Your task to perform on an android device: turn off notifications in google photos Image 0: 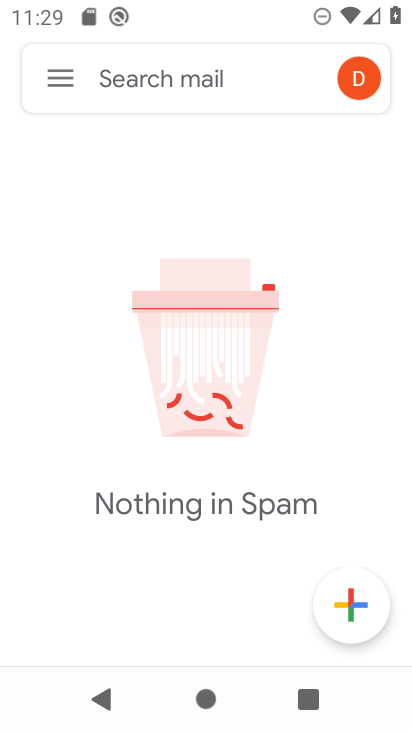
Step 0: press home button
Your task to perform on an android device: turn off notifications in google photos Image 1: 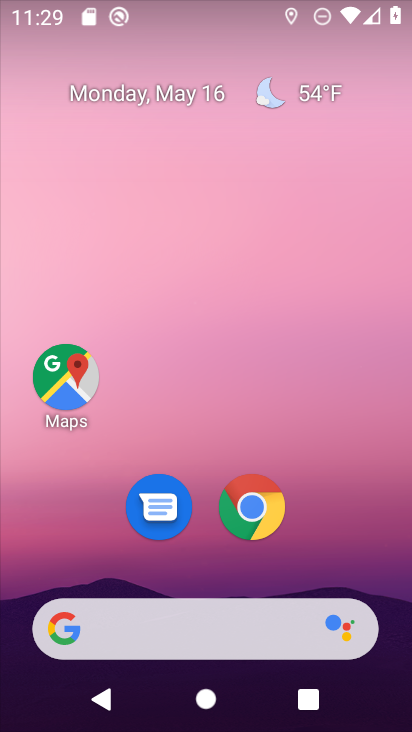
Step 1: drag from (391, 621) to (298, 150)
Your task to perform on an android device: turn off notifications in google photos Image 2: 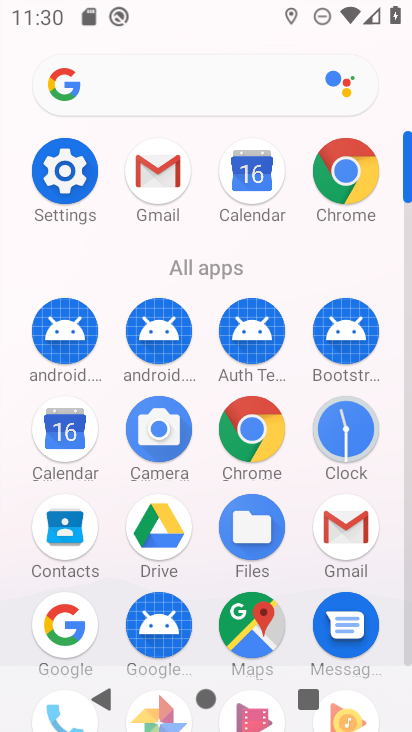
Step 2: click (405, 658)
Your task to perform on an android device: turn off notifications in google photos Image 3: 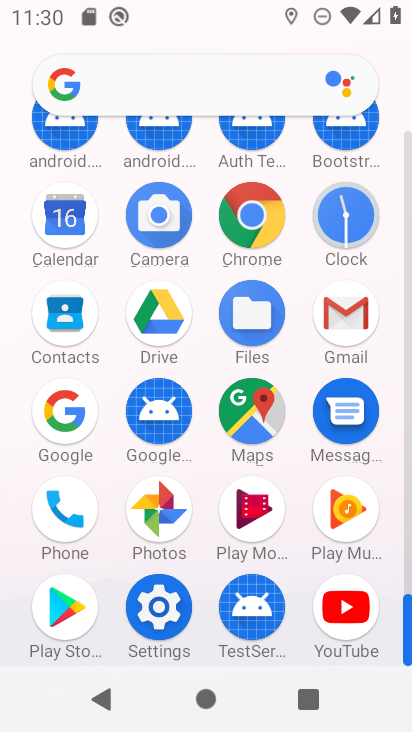
Step 3: click (166, 488)
Your task to perform on an android device: turn off notifications in google photos Image 4: 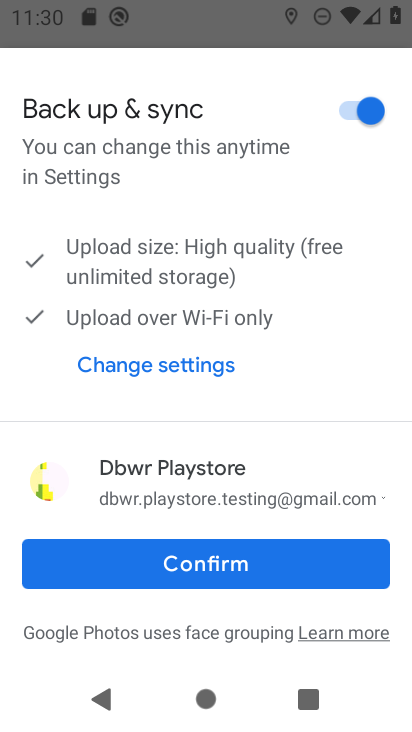
Step 4: click (219, 570)
Your task to perform on an android device: turn off notifications in google photos Image 5: 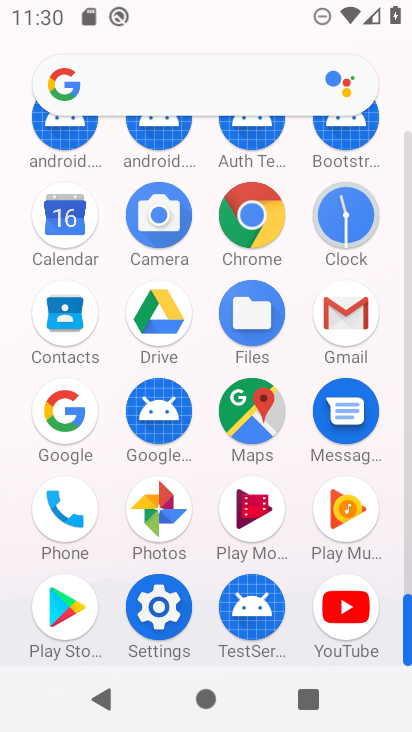
Step 5: click (177, 509)
Your task to perform on an android device: turn off notifications in google photos Image 6: 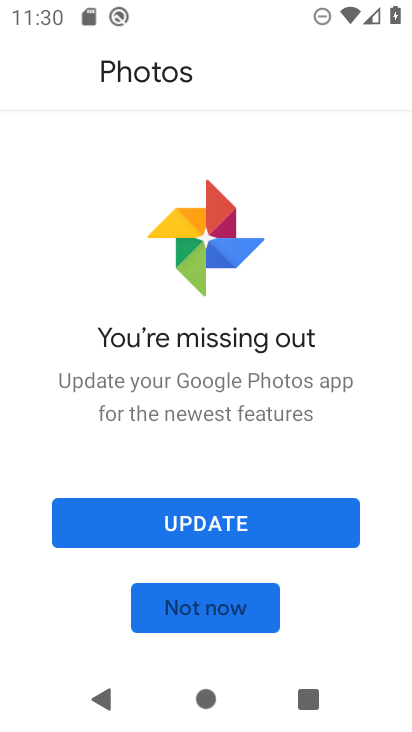
Step 6: click (216, 526)
Your task to perform on an android device: turn off notifications in google photos Image 7: 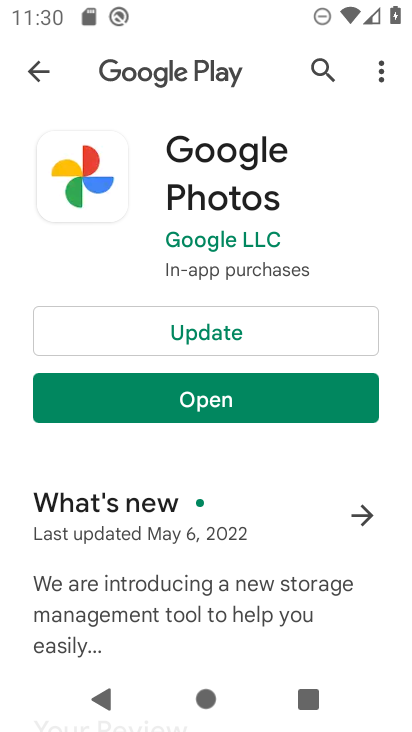
Step 7: click (242, 334)
Your task to perform on an android device: turn off notifications in google photos Image 8: 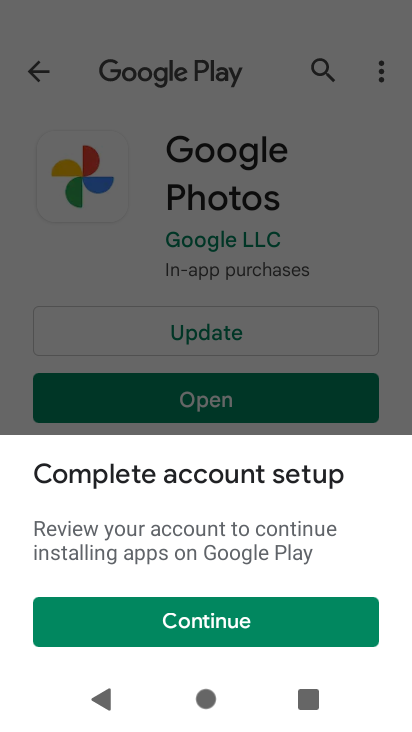
Step 8: click (250, 618)
Your task to perform on an android device: turn off notifications in google photos Image 9: 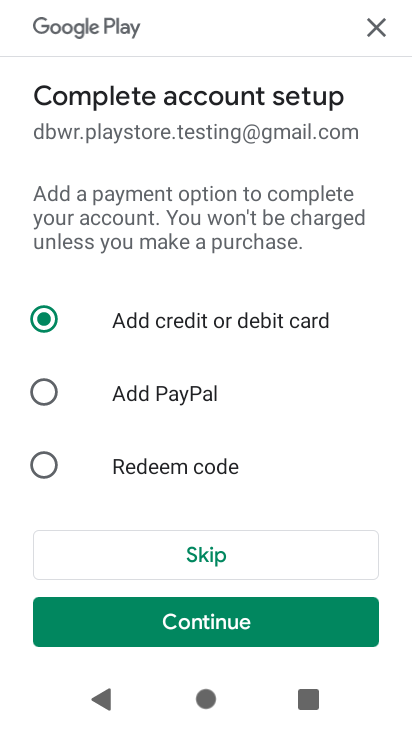
Step 9: click (250, 563)
Your task to perform on an android device: turn off notifications in google photos Image 10: 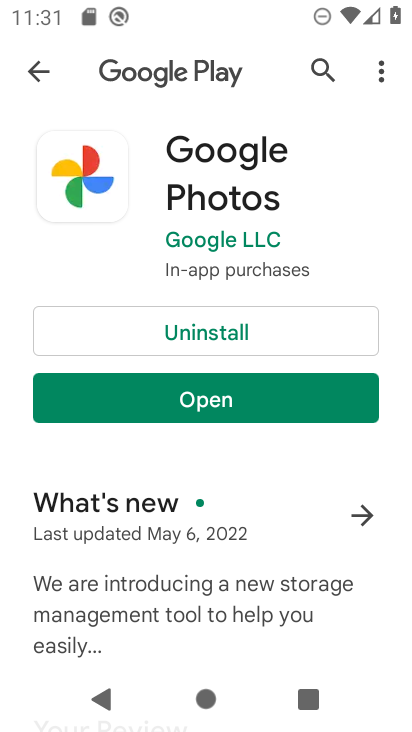
Step 10: click (307, 406)
Your task to perform on an android device: turn off notifications in google photos Image 11: 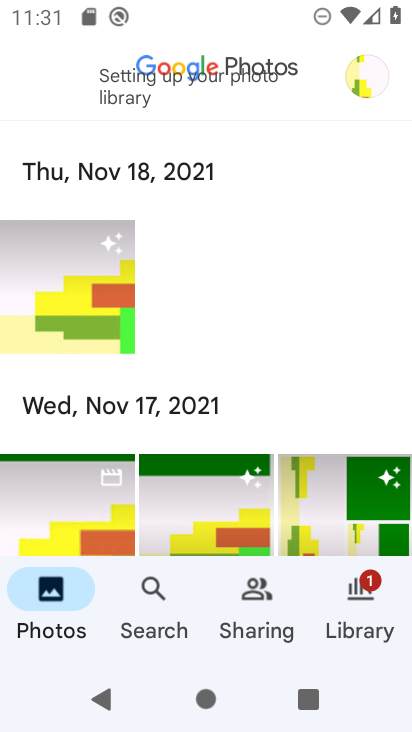
Step 11: click (356, 75)
Your task to perform on an android device: turn off notifications in google photos Image 12: 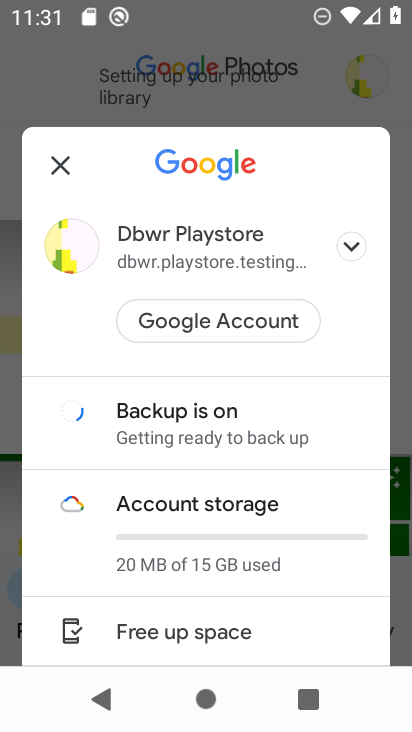
Step 12: drag from (298, 645) to (292, 353)
Your task to perform on an android device: turn off notifications in google photos Image 13: 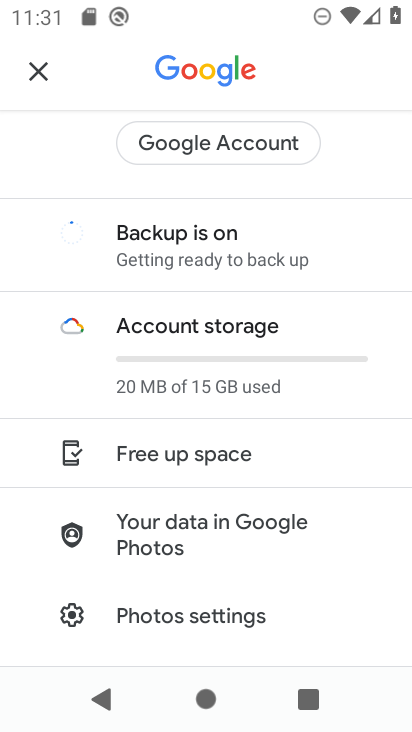
Step 13: click (288, 624)
Your task to perform on an android device: turn off notifications in google photos Image 14: 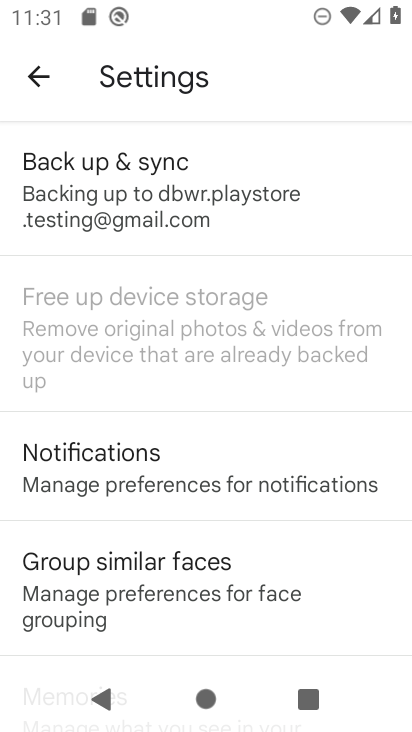
Step 14: click (287, 460)
Your task to perform on an android device: turn off notifications in google photos Image 15: 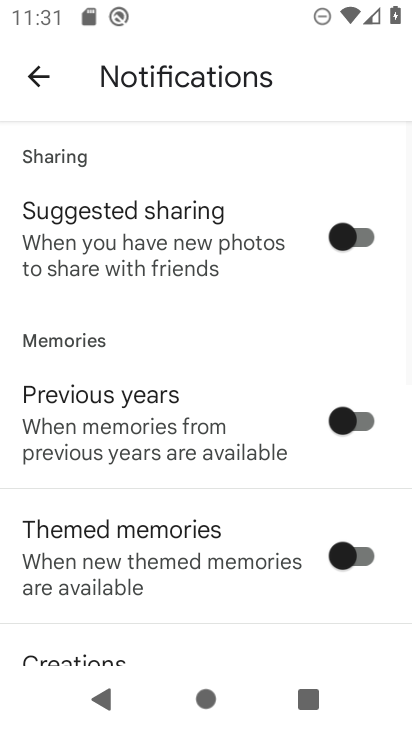
Step 15: drag from (262, 629) to (218, 174)
Your task to perform on an android device: turn off notifications in google photos Image 16: 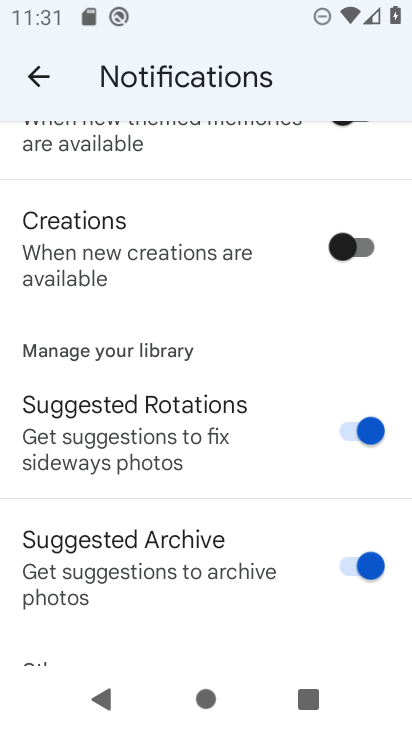
Step 16: drag from (256, 546) to (258, 176)
Your task to perform on an android device: turn off notifications in google photos Image 17: 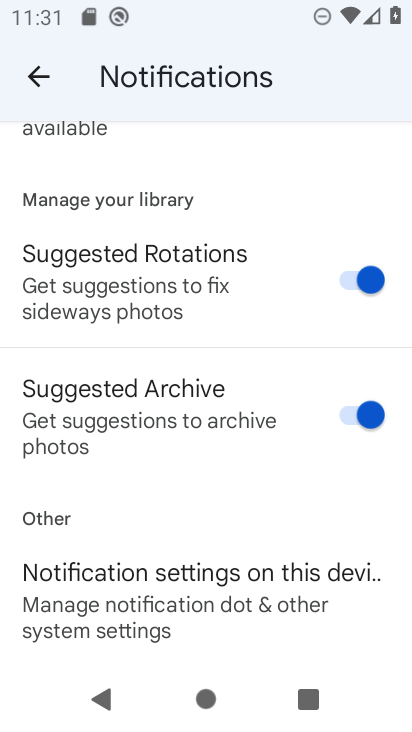
Step 17: click (190, 575)
Your task to perform on an android device: turn off notifications in google photos Image 18: 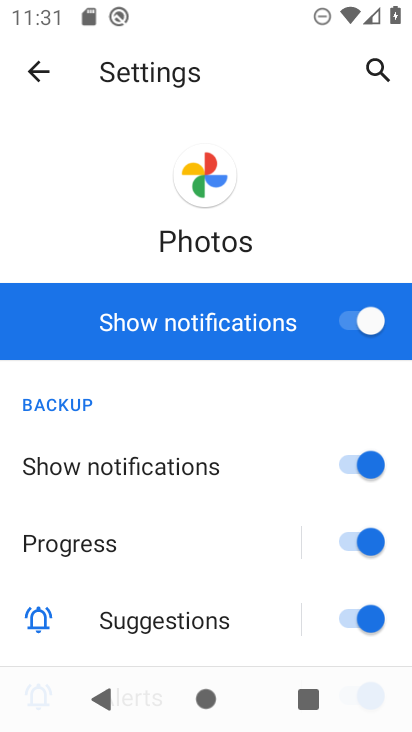
Step 18: drag from (247, 631) to (222, 158)
Your task to perform on an android device: turn off notifications in google photos Image 19: 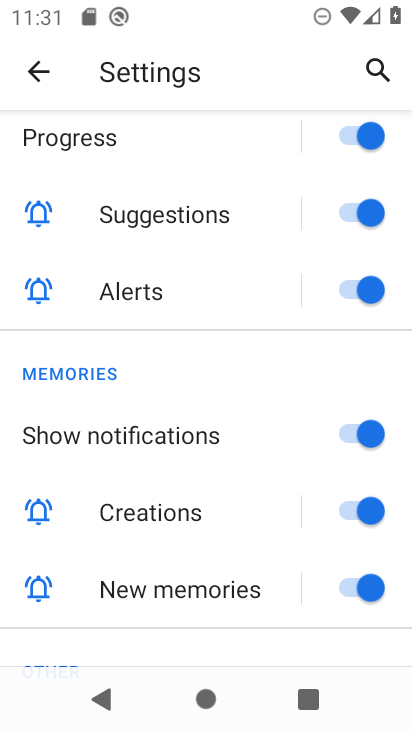
Step 19: drag from (225, 498) to (147, 709)
Your task to perform on an android device: turn off notifications in google photos Image 20: 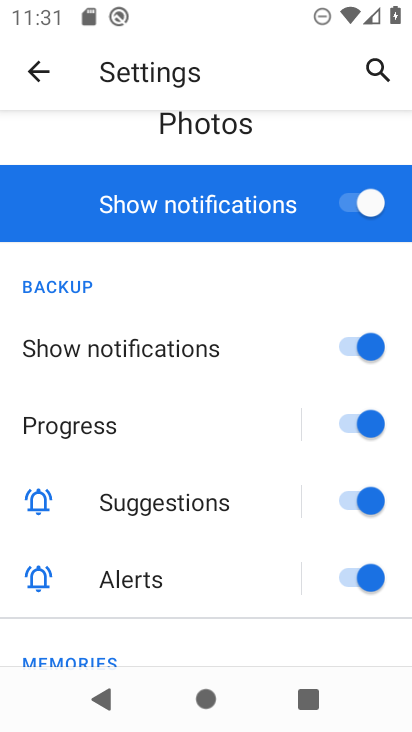
Step 20: click (371, 213)
Your task to perform on an android device: turn off notifications in google photos Image 21: 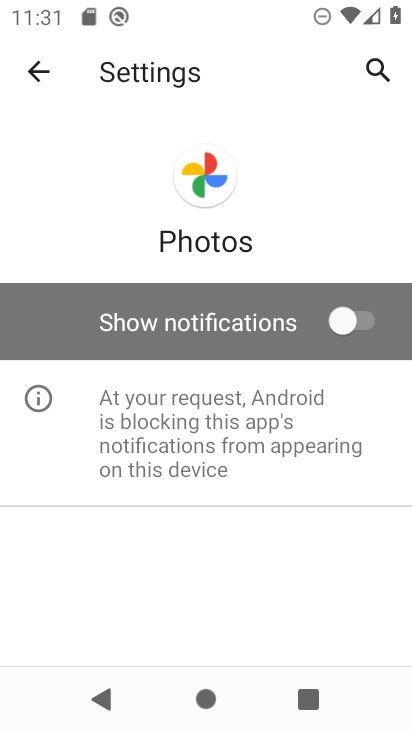
Step 21: task complete